Your task to perform on an android device: make emails show in primary in the gmail app Image 0: 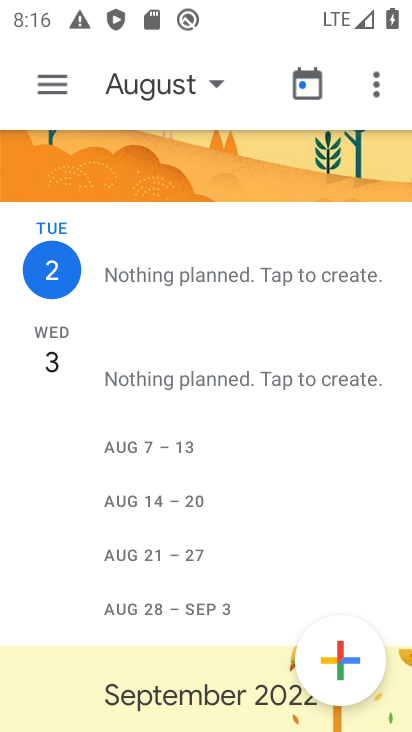
Step 0: press home button
Your task to perform on an android device: make emails show in primary in the gmail app Image 1: 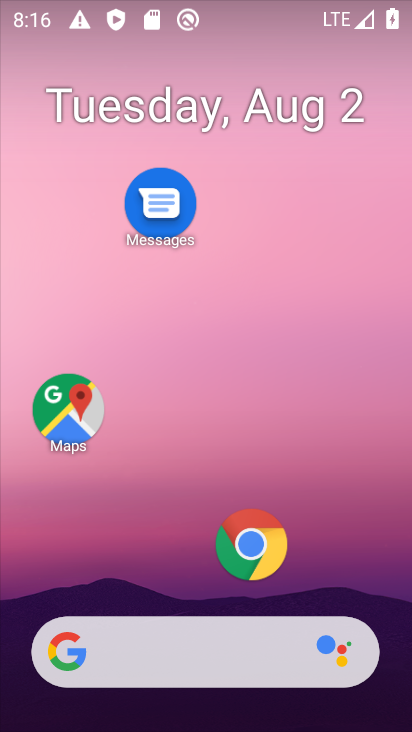
Step 1: drag from (158, 559) to (279, 126)
Your task to perform on an android device: make emails show in primary in the gmail app Image 2: 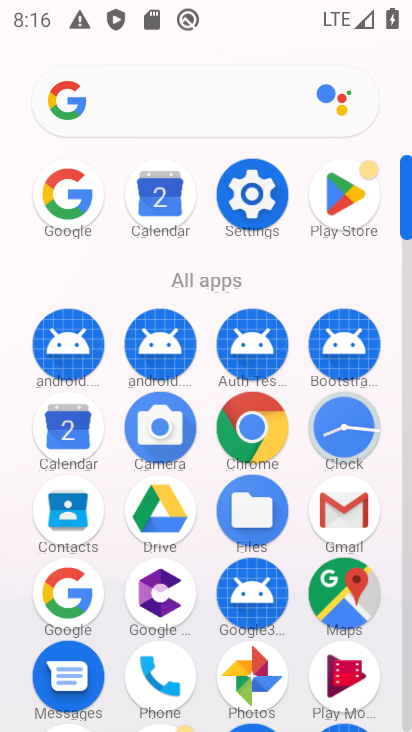
Step 2: click (329, 528)
Your task to perform on an android device: make emails show in primary in the gmail app Image 3: 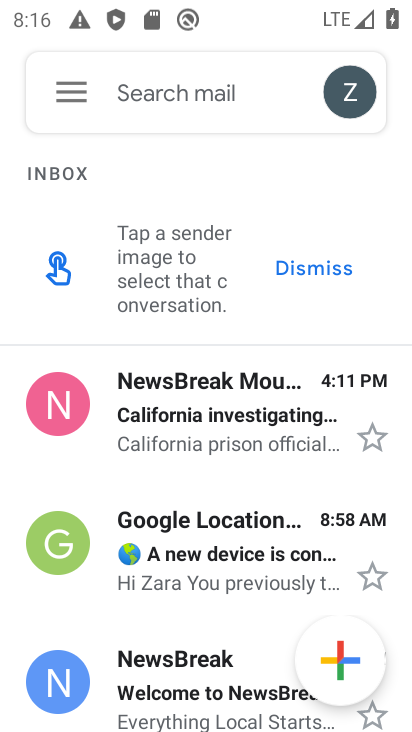
Step 3: click (78, 110)
Your task to perform on an android device: make emails show in primary in the gmail app Image 4: 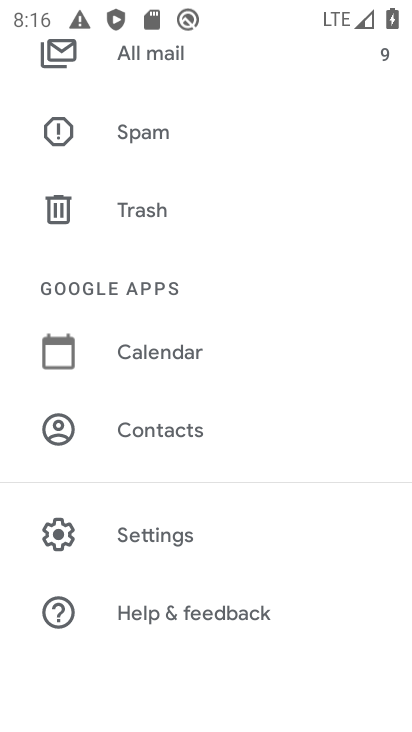
Step 4: click (163, 515)
Your task to perform on an android device: make emails show in primary in the gmail app Image 5: 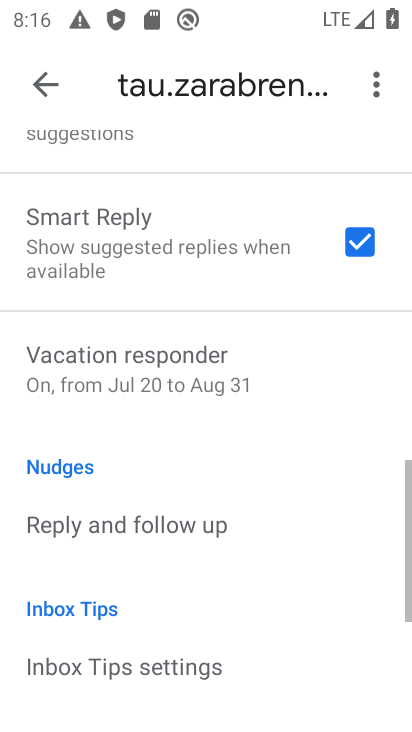
Step 5: drag from (166, 213) to (257, 699)
Your task to perform on an android device: make emails show in primary in the gmail app Image 6: 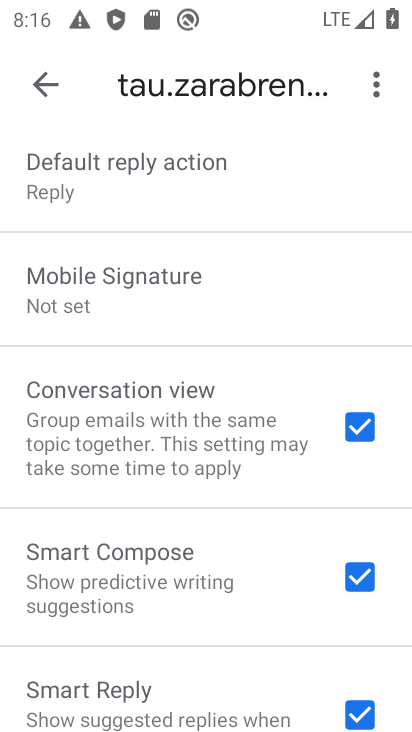
Step 6: drag from (176, 284) to (209, 673)
Your task to perform on an android device: make emails show in primary in the gmail app Image 7: 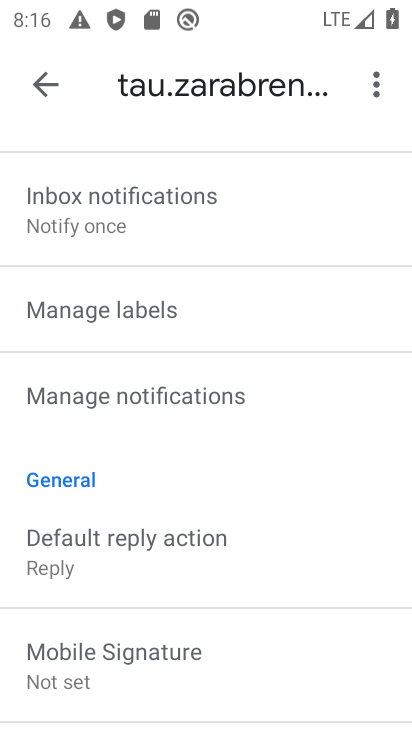
Step 7: drag from (182, 242) to (220, 638)
Your task to perform on an android device: make emails show in primary in the gmail app Image 8: 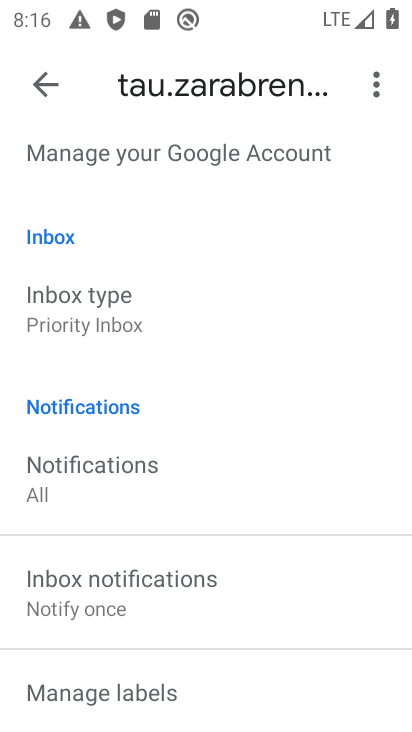
Step 8: drag from (169, 247) to (176, 302)
Your task to perform on an android device: make emails show in primary in the gmail app Image 9: 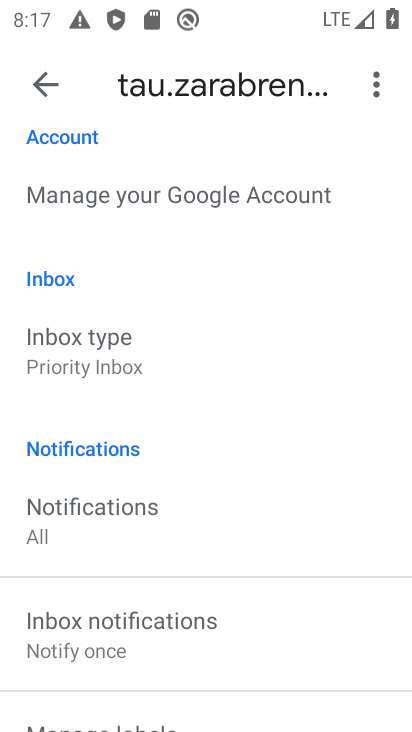
Step 9: click (97, 388)
Your task to perform on an android device: make emails show in primary in the gmail app Image 10: 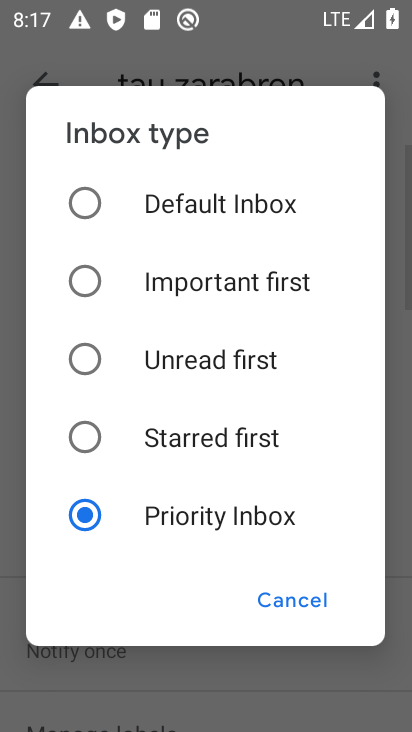
Step 10: click (111, 210)
Your task to perform on an android device: make emails show in primary in the gmail app Image 11: 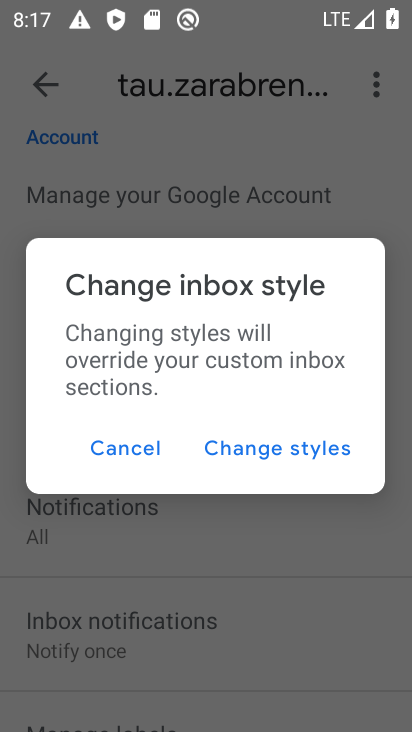
Step 11: click (265, 446)
Your task to perform on an android device: make emails show in primary in the gmail app Image 12: 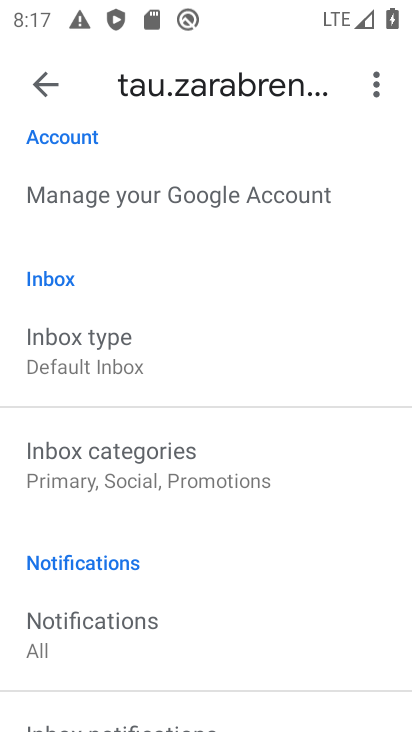
Step 12: task complete